Your task to perform on an android device: all mails in gmail Image 0: 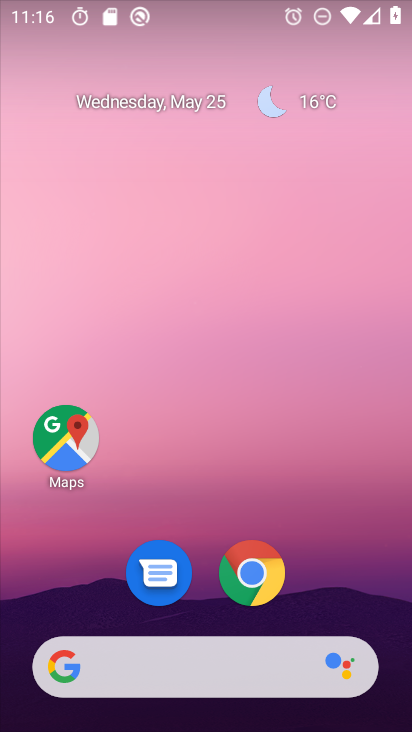
Step 0: drag from (354, 627) to (330, 5)
Your task to perform on an android device: all mails in gmail Image 1: 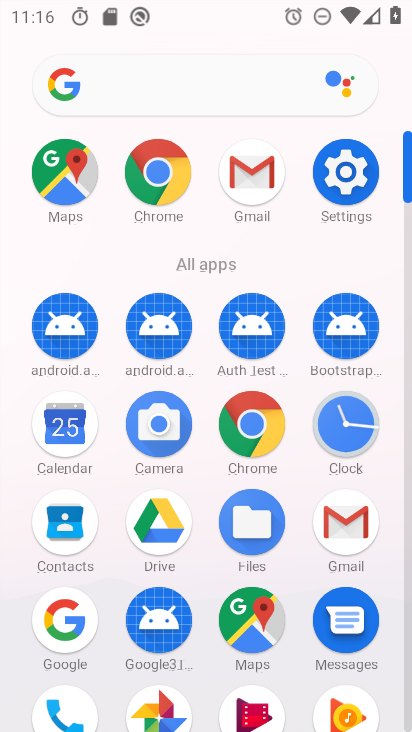
Step 1: click (253, 160)
Your task to perform on an android device: all mails in gmail Image 2: 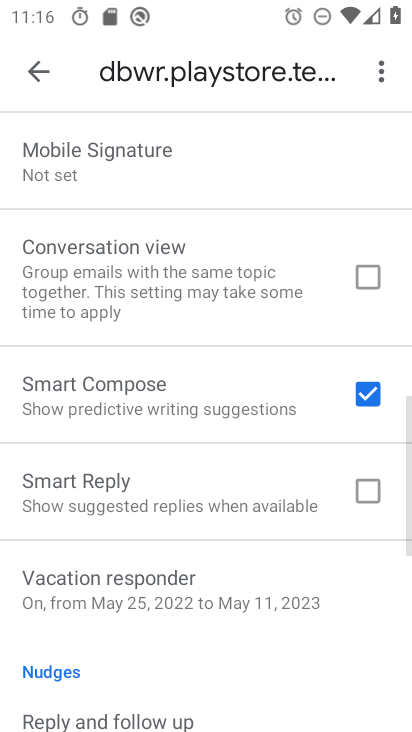
Step 2: click (36, 72)
Your task to perform on an android device: all mails in gmail Image 3: 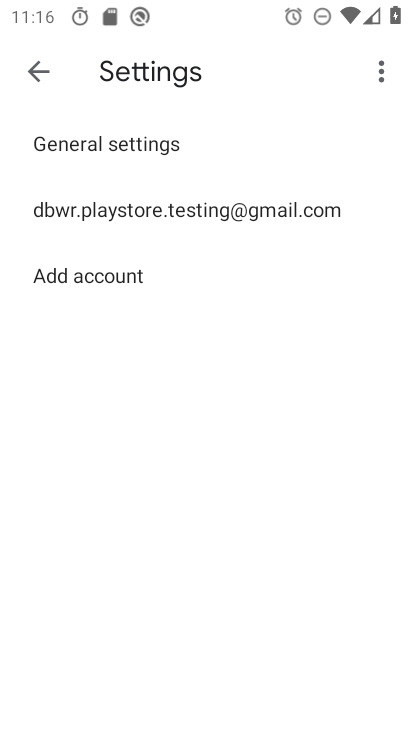
Step 3: click (36, 72)
Your task to perform on an android device: all mails in gmail Image 4: 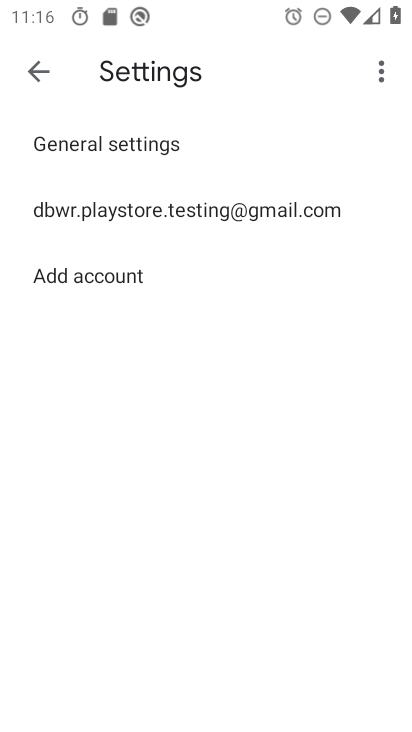
Step 4: click (36, 72)
Your task to perform on an android device: all mails in gmail Image 5: 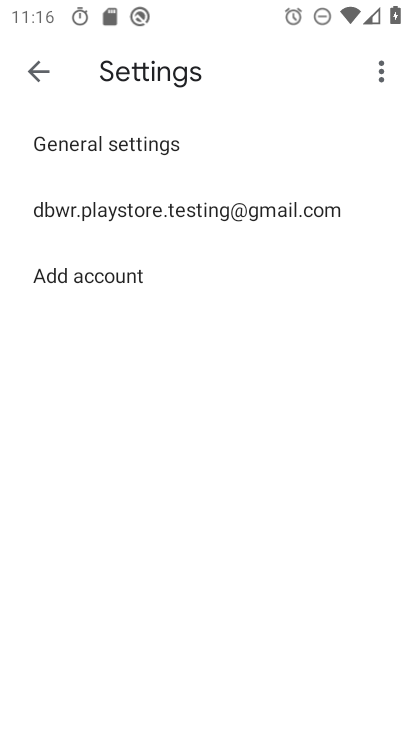
Step 5: click (36, 72)
Your task to perform on an android device: all mails in gmail Image 6: 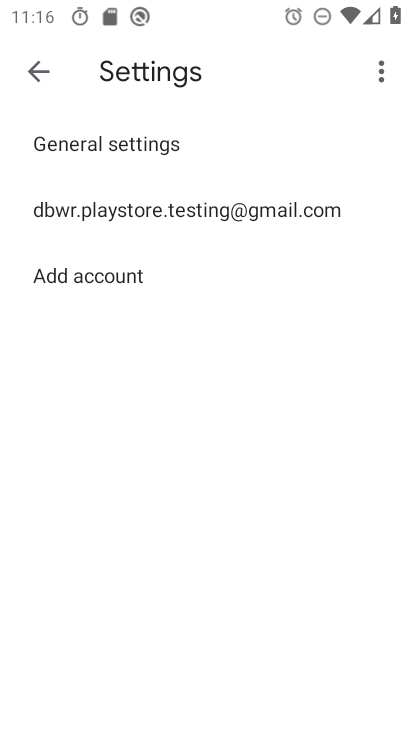
Step 6: click (36, 72)
Your task to perform on an android device: all mails in gmail Image 7: 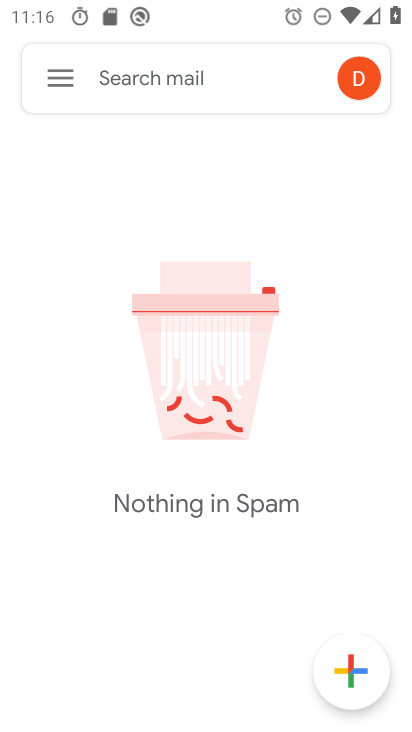
Step 7: click (54, 78)
Your task to perform on an android device: all mails in gmail Image 8: 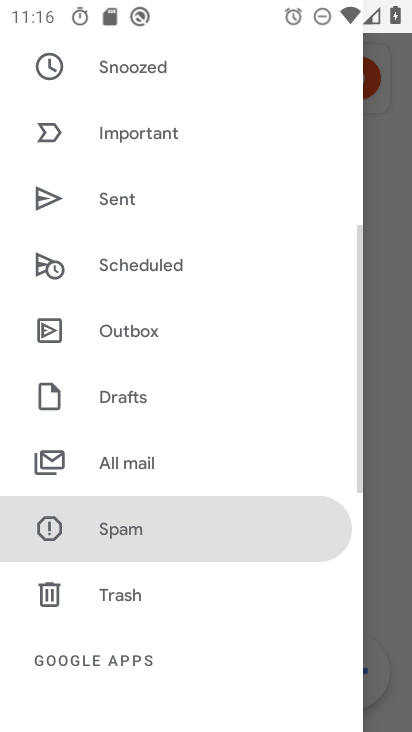
Step 8: click (143, 467)
Your task to perform on an android device: all mails in gmail Image 9: 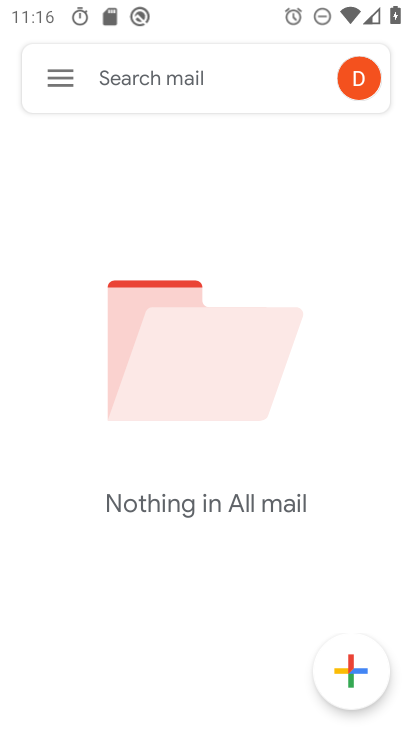
Step 9: task complete